Your task to perform on an android device: Open Google Chrome and open the bookmarks view Image 0: 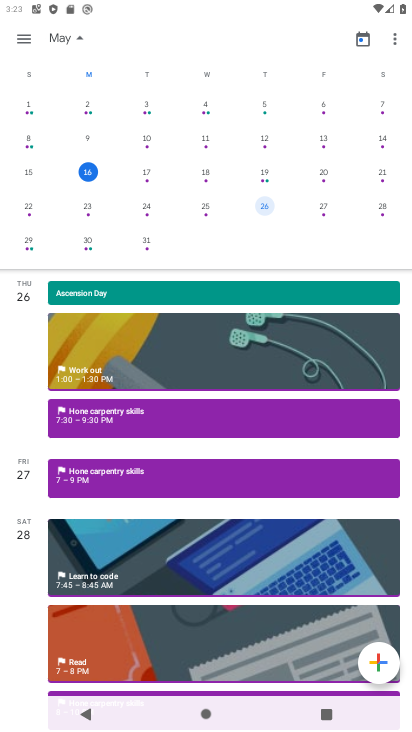
Step 0: press home button
Your task to perform on an android device: Open Google Chrome and open the bookmarks view Image 1: 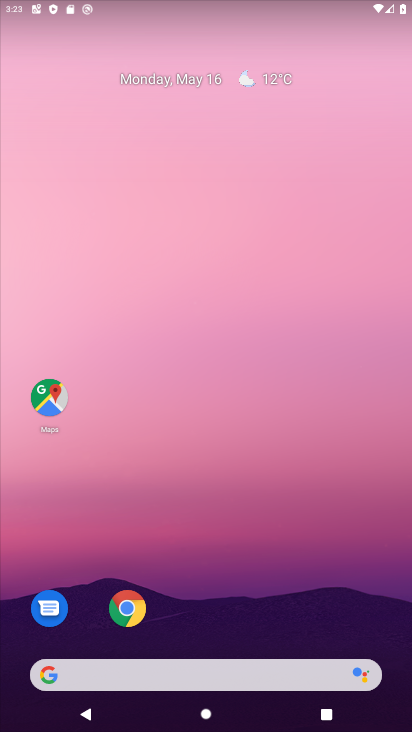
Step 1: click (121, 600)
Your task to perform on an android device: Open Google Chrome and open the bookmarks view Image 2: 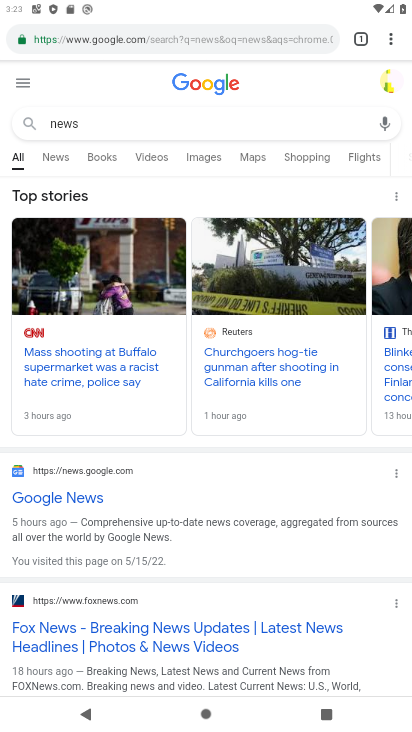
Step 2: click (391, 40)
Your task to perform on an android device: Open Google Chrome and open the bookmarks view Image 3: 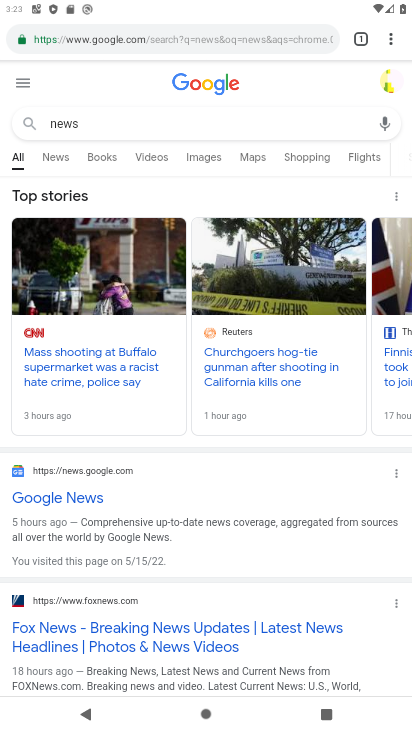
Step 3: click (397, 41)
Your task to perform on an android device: Open Google Chrome and open the bookmarks view Image 4: 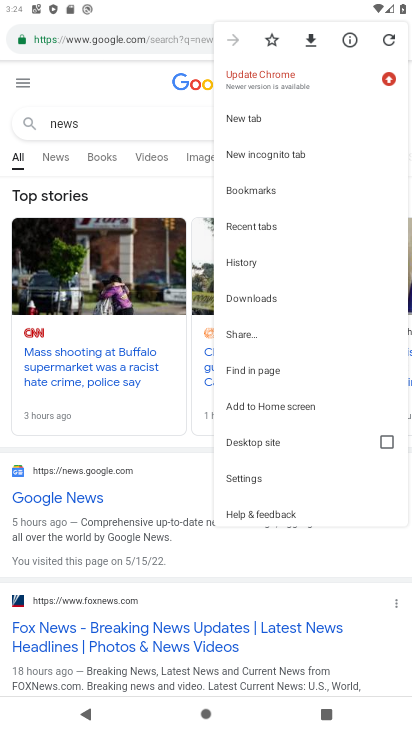
Step 4: click (282, 187)
Your task to perform on an android device: Open Google Chrome and open the bookmarks view Image 5: 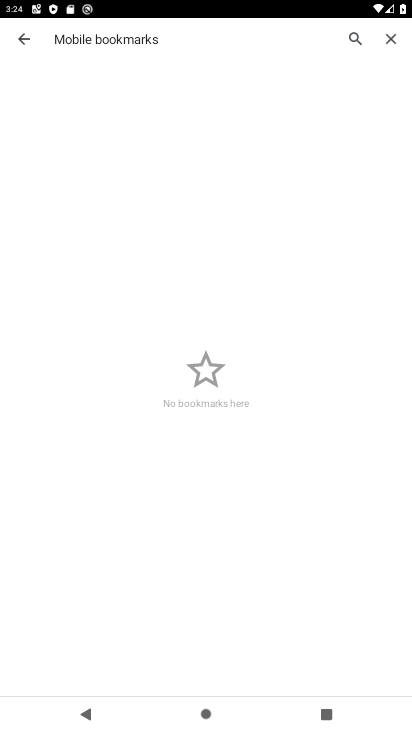
Step 5: task complete